Your task to perform on an android device: Show me popular videos on Youtube Image 0: 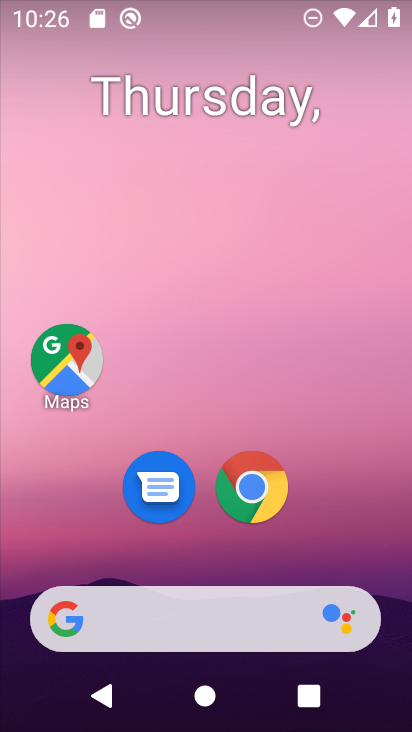
Step 0: drag from (336, 531) to (97, 3)
Your task to perform on an android device: Show me popular videos on Youtube Image 1: 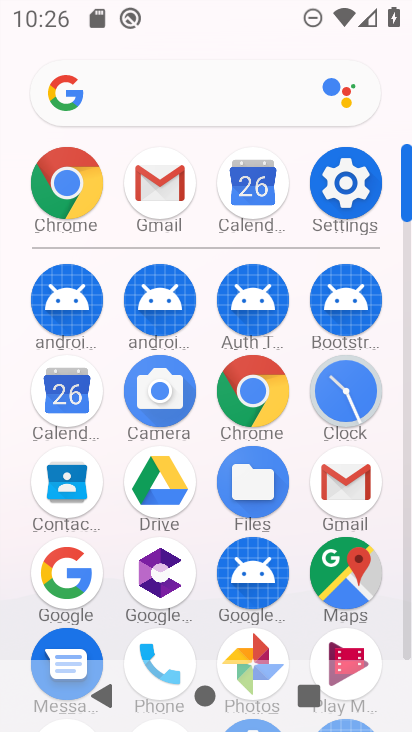
Step 1: drag from (408, 206) to (372, 132)
Your task to perform on an android device: Show me popular videos on Youtube Image 2: 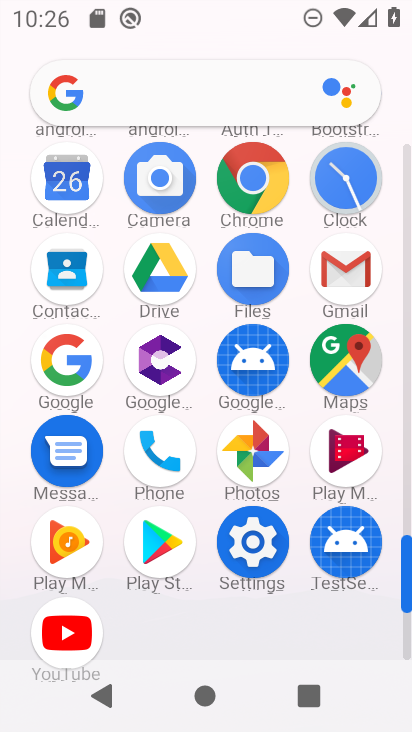
Step 2: click (73, 629)
Your task to perform on an android device: Show me popular videos on Youtube Image 3: 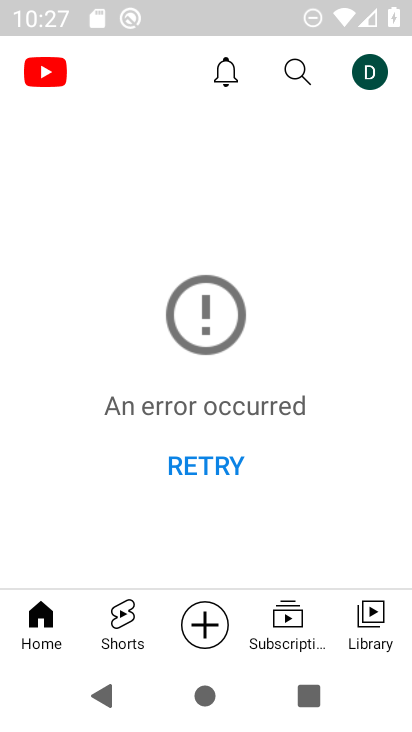
Step 3: click (203, 468)
Your task to perform on an android device: Show me popular videos on Youtube Image 4: 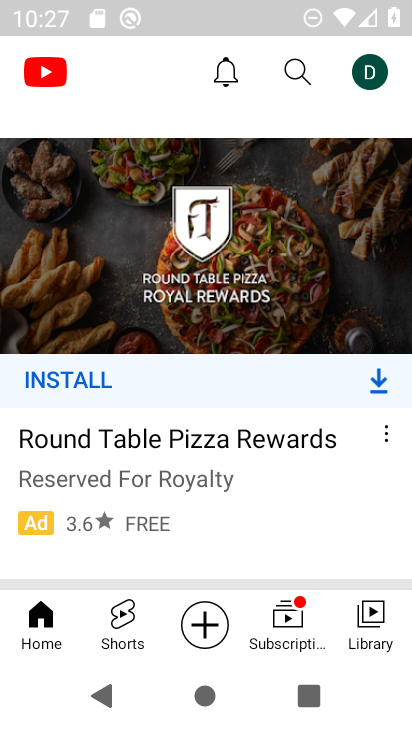
Step 4: click (299, 629)
Your task to perform on an android device: Show me popular videos on Youtube Image 5: 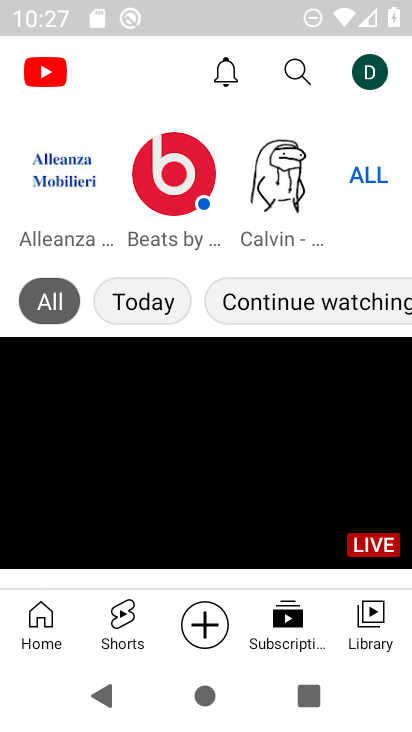
Step 5: click (381, 623)
Your task to perform on an android device: Show me popular videos on Youtube Image 6: 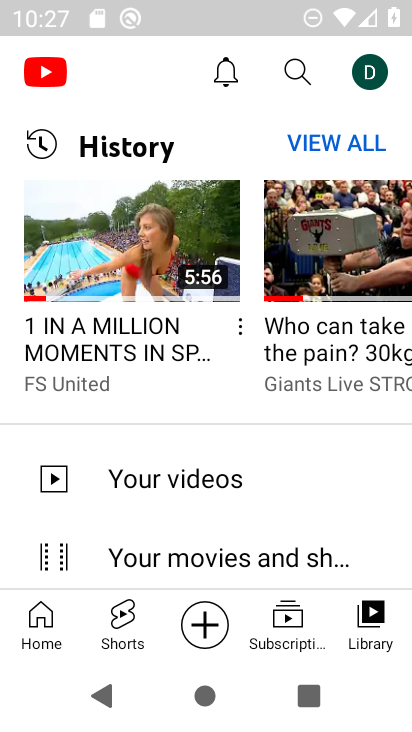
Step 6: drag from (317, 541) to (266, 220)
Your task to perform on an android device: Show me popular videos on Youtube Image 7: 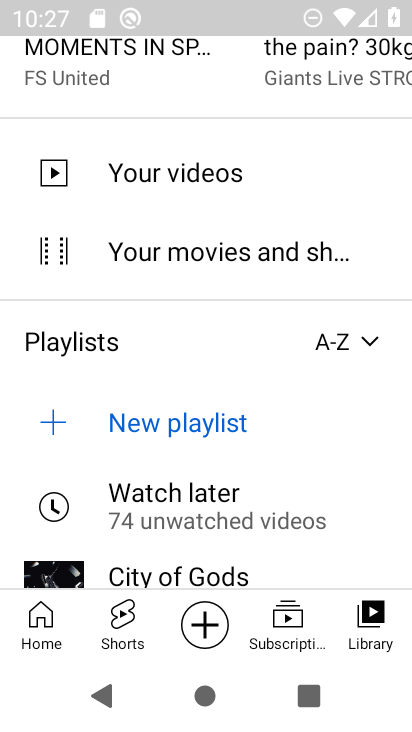
Step 7: click (45, 621)
Your task to perform on an android device: Show me popular videos on Youtube Image 8: 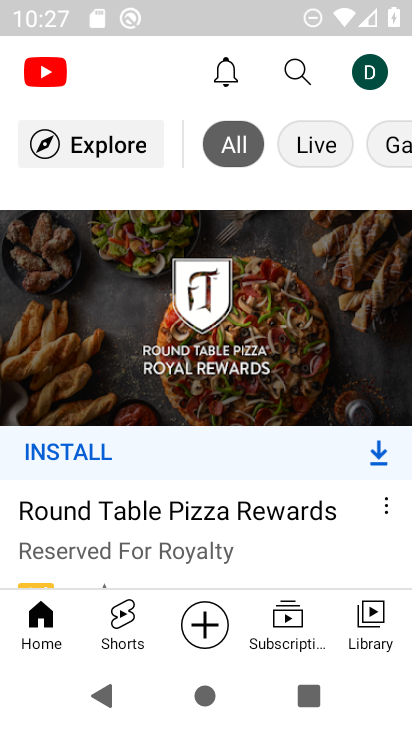
Step 8: click (90, 149)
Your task to perform on an android device: Show me popular videos on Youtube Image 9: 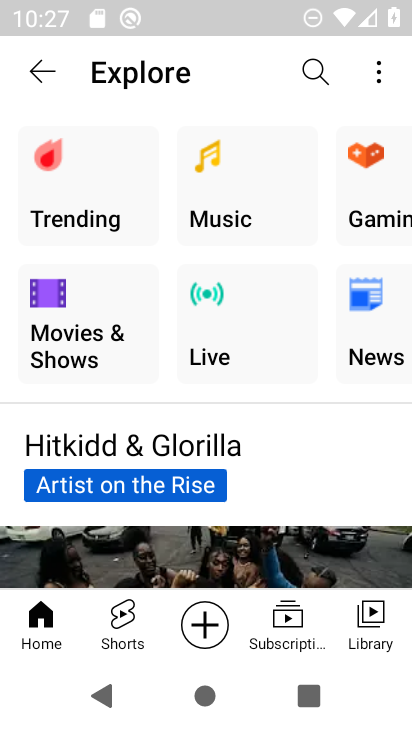
Step 9: click (94, 175)
Your task to perform on an android device: Show me popular videos on Youtube Image 10: 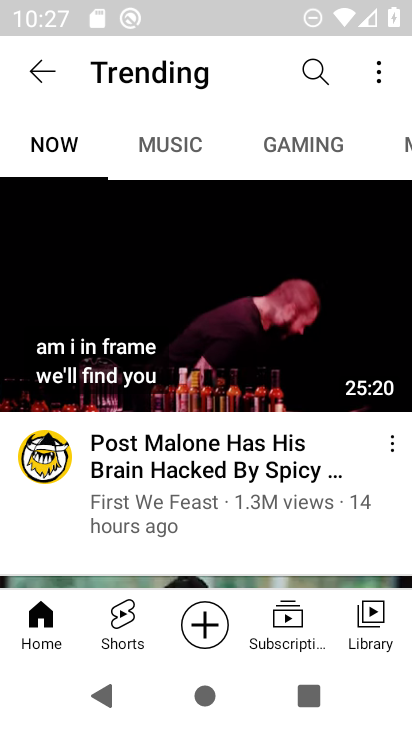
Step 10: task complete